Your task to perform on an android device: Open Google Maps Image 0: 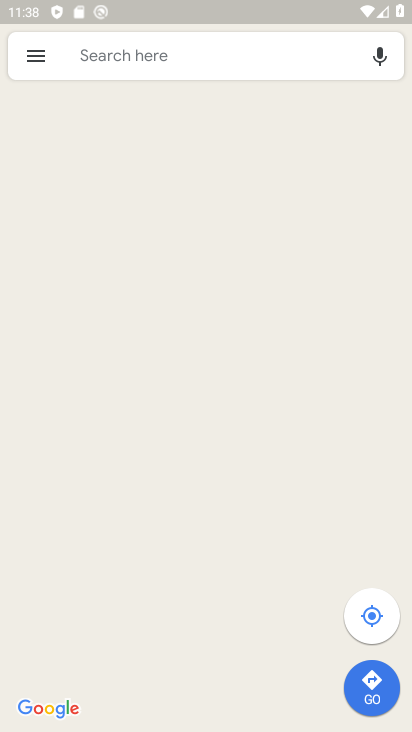
Step 0: press home button
Your task to perform on an android device: Open Google Maps Image 1: 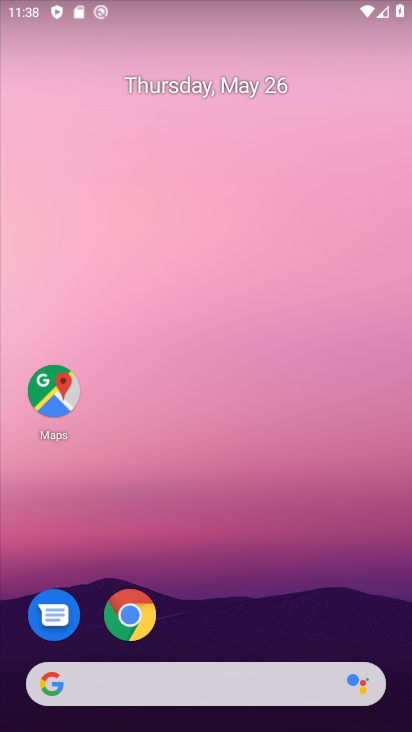
Step 1: drag from (279, 584) to (276, 476)
Your task to perform on an android device: Open Google Maps Image 2: 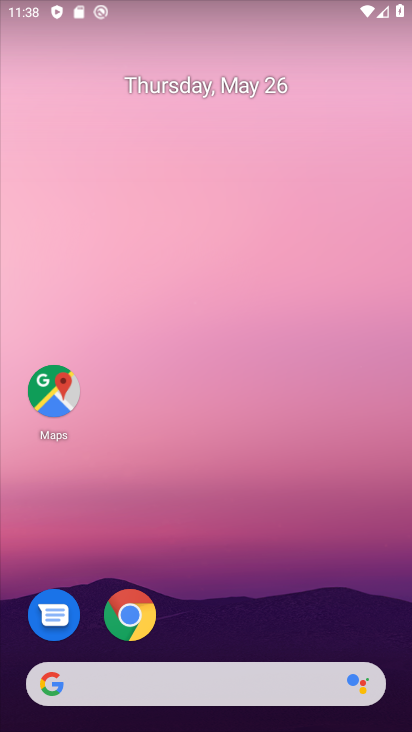
Step 2: drag from (277, 434) to (272, 85)
Your task to perform on an android device: Open Google Maps Image 3: 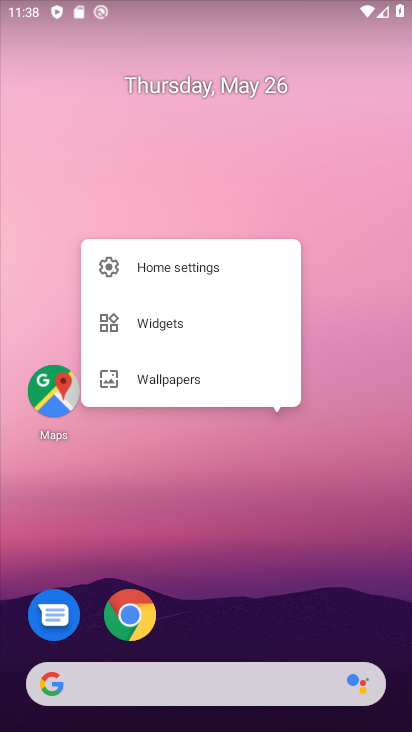
Step 3: click (324, 575)
Your task to perform on an android device: Open Google Maps Image 4: 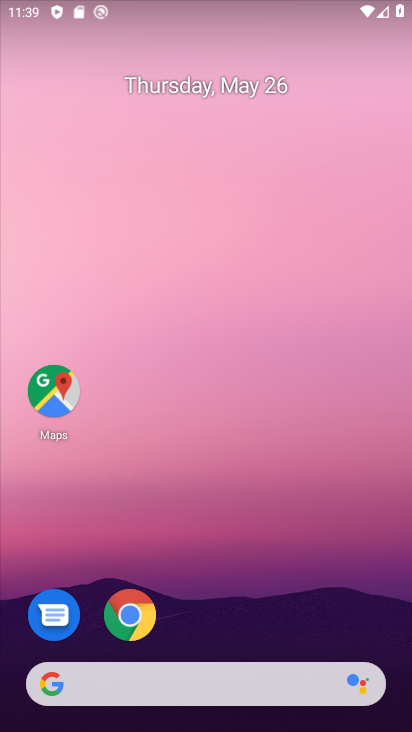
Step 4: drag from (324, 575) to (192, 187)
Your task to perform on an android device: Open Google Maps Image 5: 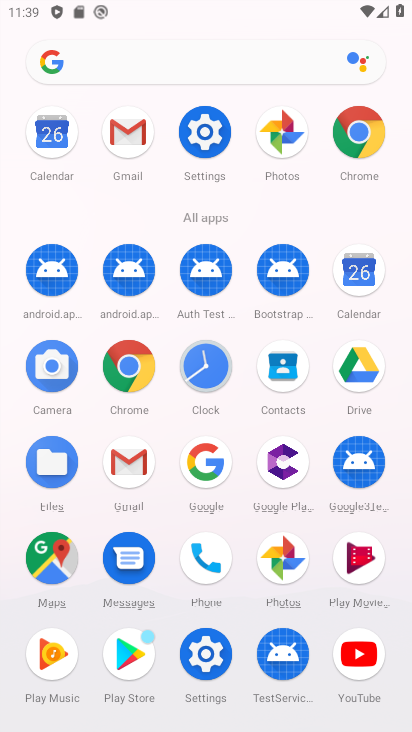
Step 5: click (40, 527)
Your task to perform on an android device: Open Google Maps Image 6: 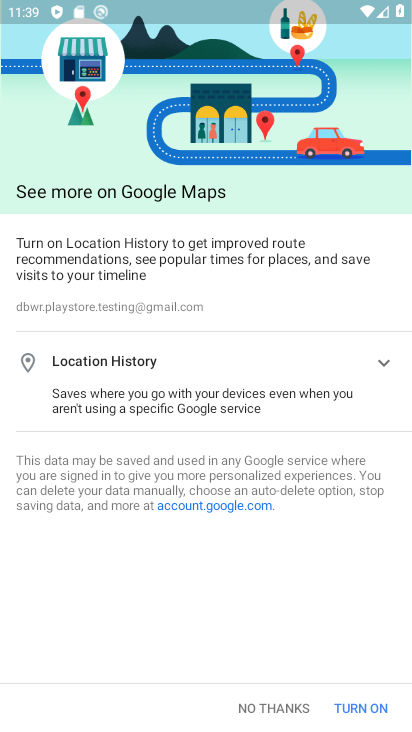
Step 6: task complete